Your task to perform on an android device: Open calendar and show me the second week of next month Image 0: 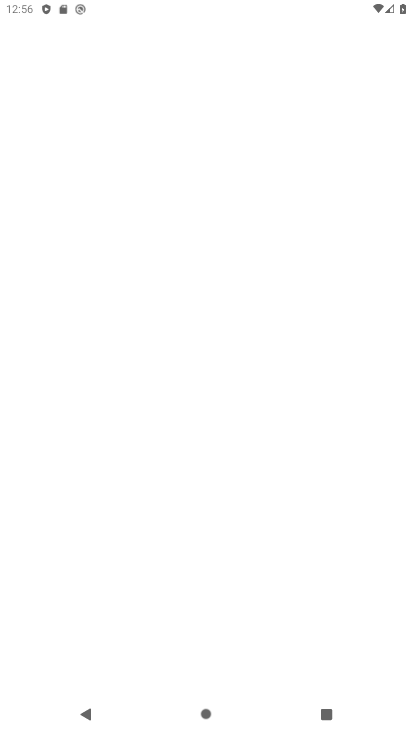
Step 0: press home button
Your task to perform on an android device: Open calendar and show me the second week of next month Image 1: 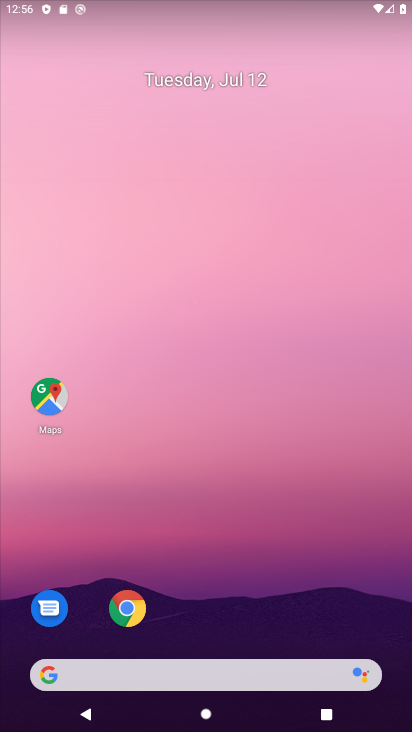
Step 1: drag from (177, 650) to (273, 169)
Your task to perform on an android device: Open calendar and show me the second week of next month Image 2: 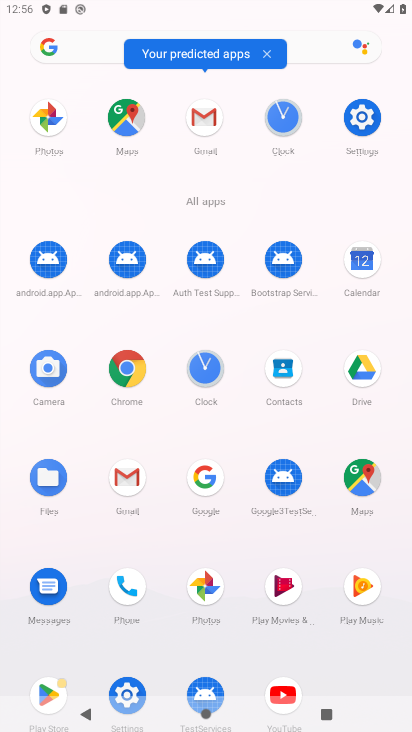
Step 2: click (375, 268)
Your task to perform on an android device: Open calendar and show me the second week of next month Image 3: 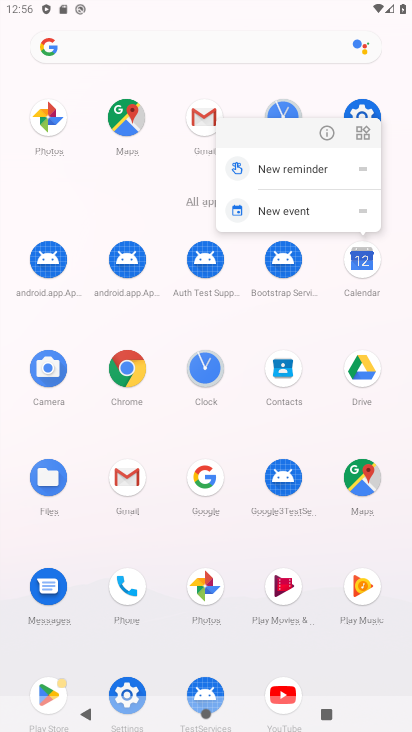
Step 3: click (364, 268)
Your task to perform on an android device: Open calendar and show me the second week of next month Image 4: 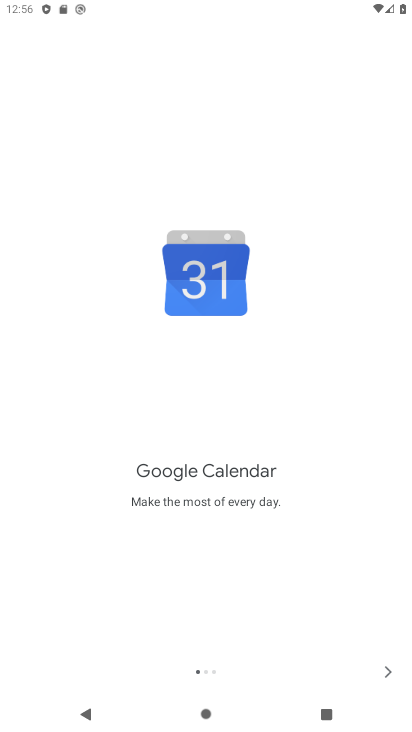
Step 4: click (396, 662)
Your task to perform on an android device: Open calendar and show me the second week of next month Image 5: 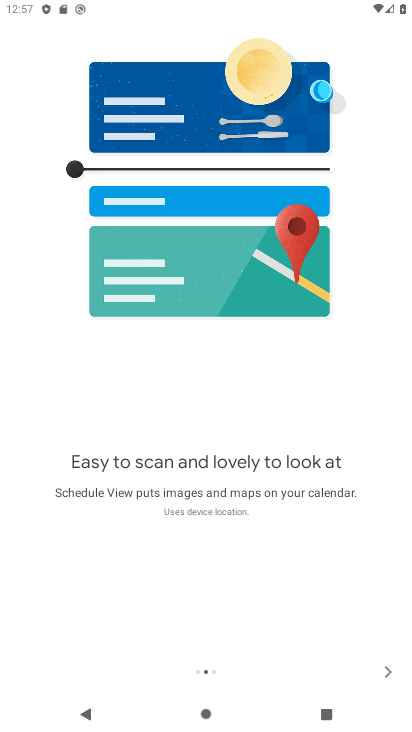
Step 5: click (395, 661)
Your task to perform on an android device: Open calendar and show me the second week of next month Image 6: 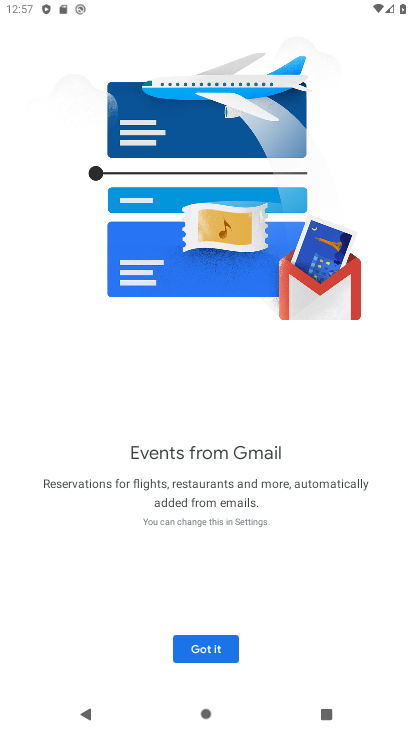
Step 6: click (256, 671)
Your task to perform on an android device: Open calendar and show me the second week of next month Image 7: 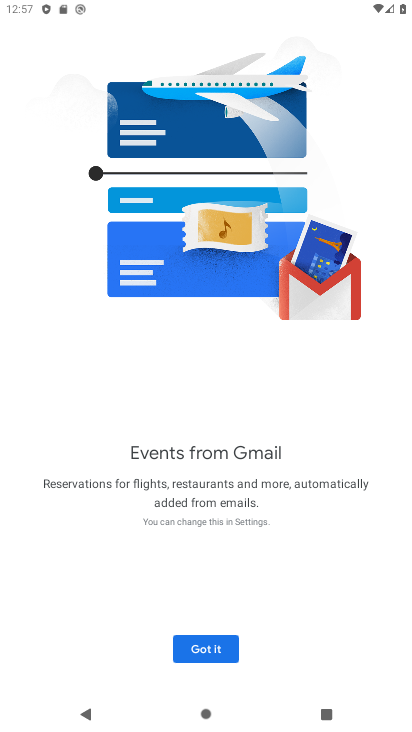
Step 7: click (229, 658)
Your task to perform on an android device: Open calendar and show me the second week of next month Image 8: 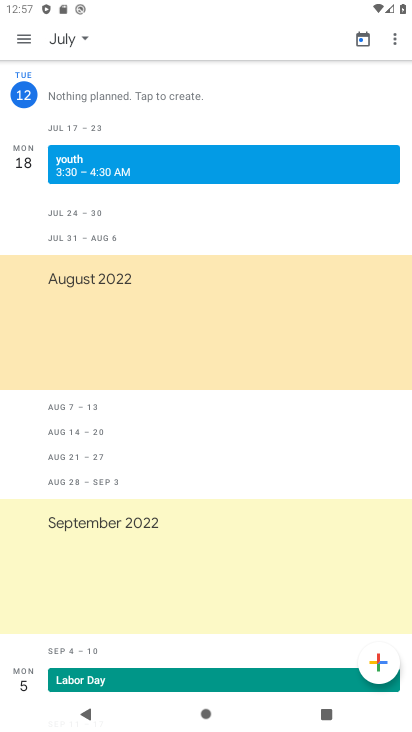
Step 8: click (66, 42)
Your task to perform on an android device: Open calendar and show me the second week of next month Image 9: 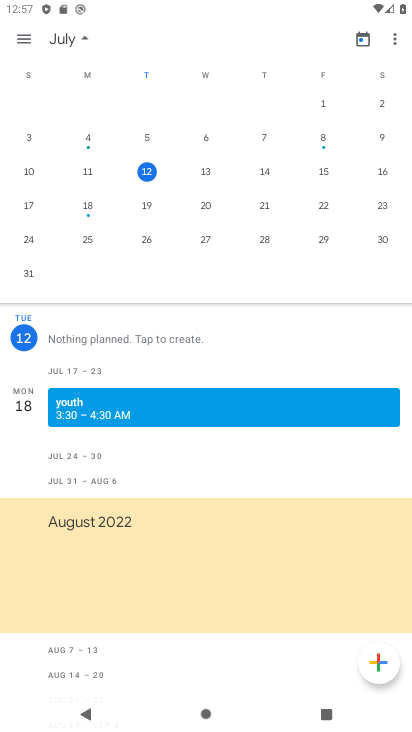
Step 9: drag from (345, 270) to (0, 658)
Your task to perform on an android device: Open calendar and show me the second week of next month Image 10: 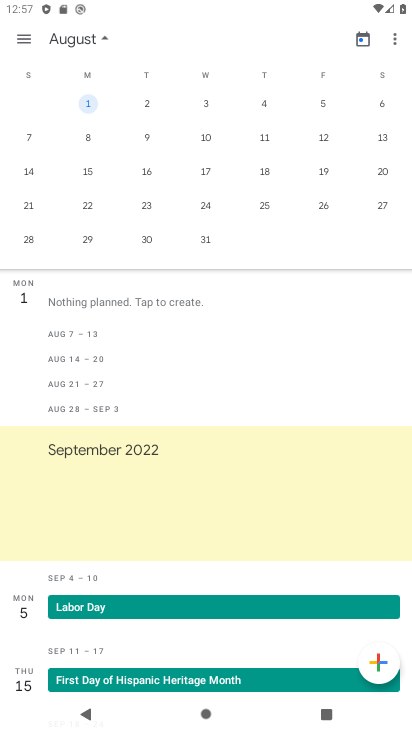
Step 10: click (28, 177)
Your task to perform on an android device: Open calendar and show me the second week of next month Image 11: 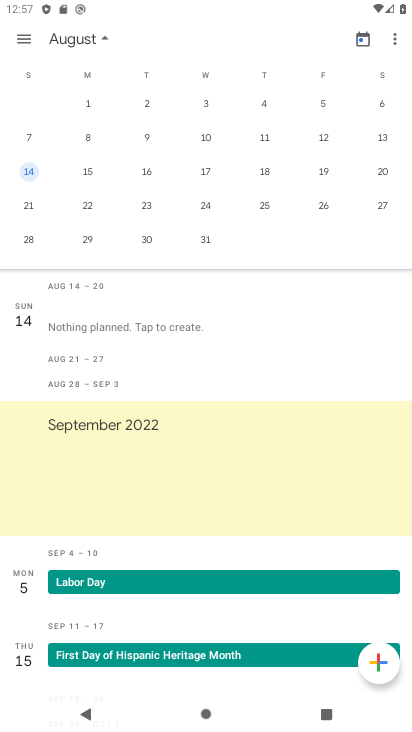
Step 11: click (24, 38)
Your task to perform on an android device: Open calendar and show me the second week of next month Image 12: 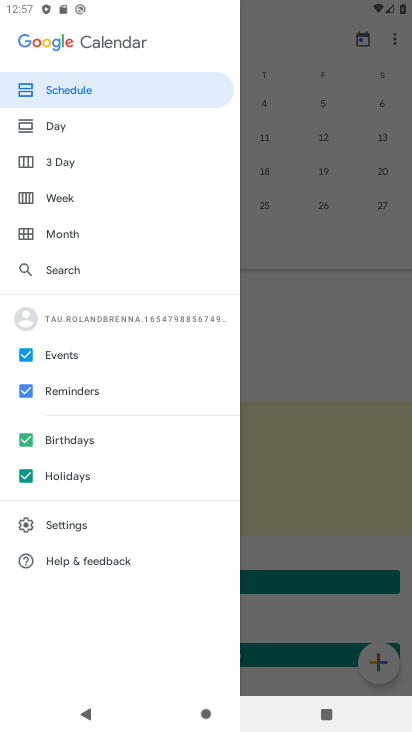
Step 12: click (60, 201)
Your task to perform on an android device: Open calendar and show me the second week of next month Image 13: 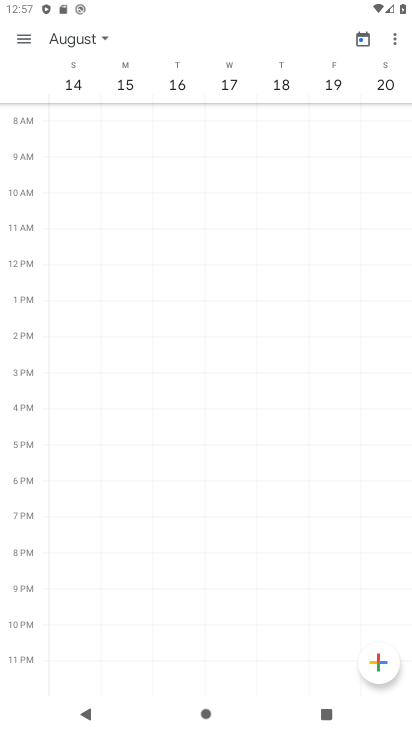
Step 13: task complete